Your task to perform on an android device: Open the map Image 0: 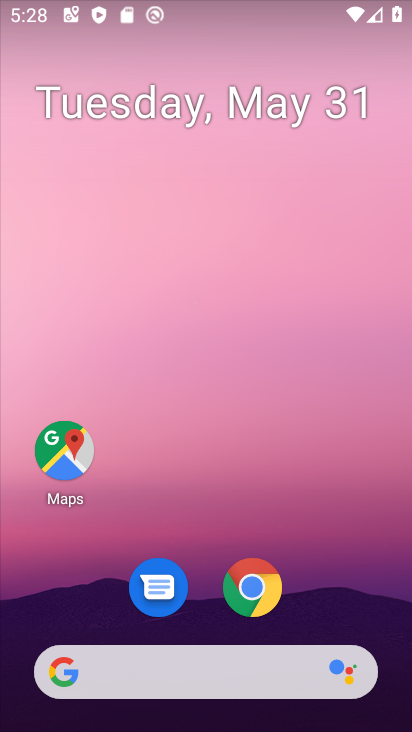
Step 0: click (68, 435)
Your task to perform on an android device: Open the map Image 1: 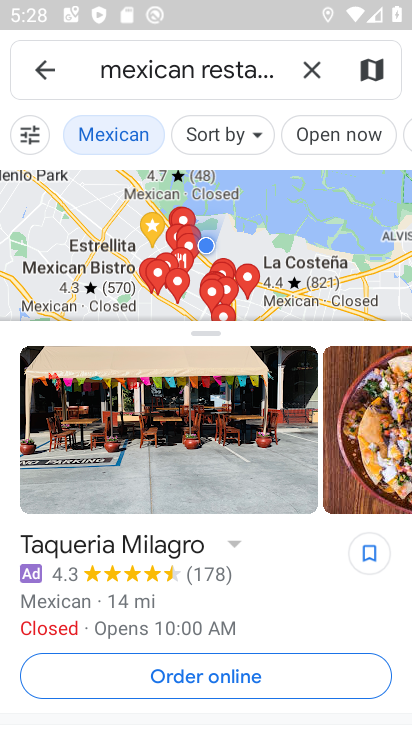
Step 1: task complete